Your task to perform on an android device: install app "Fetch Rewards" Image 0: 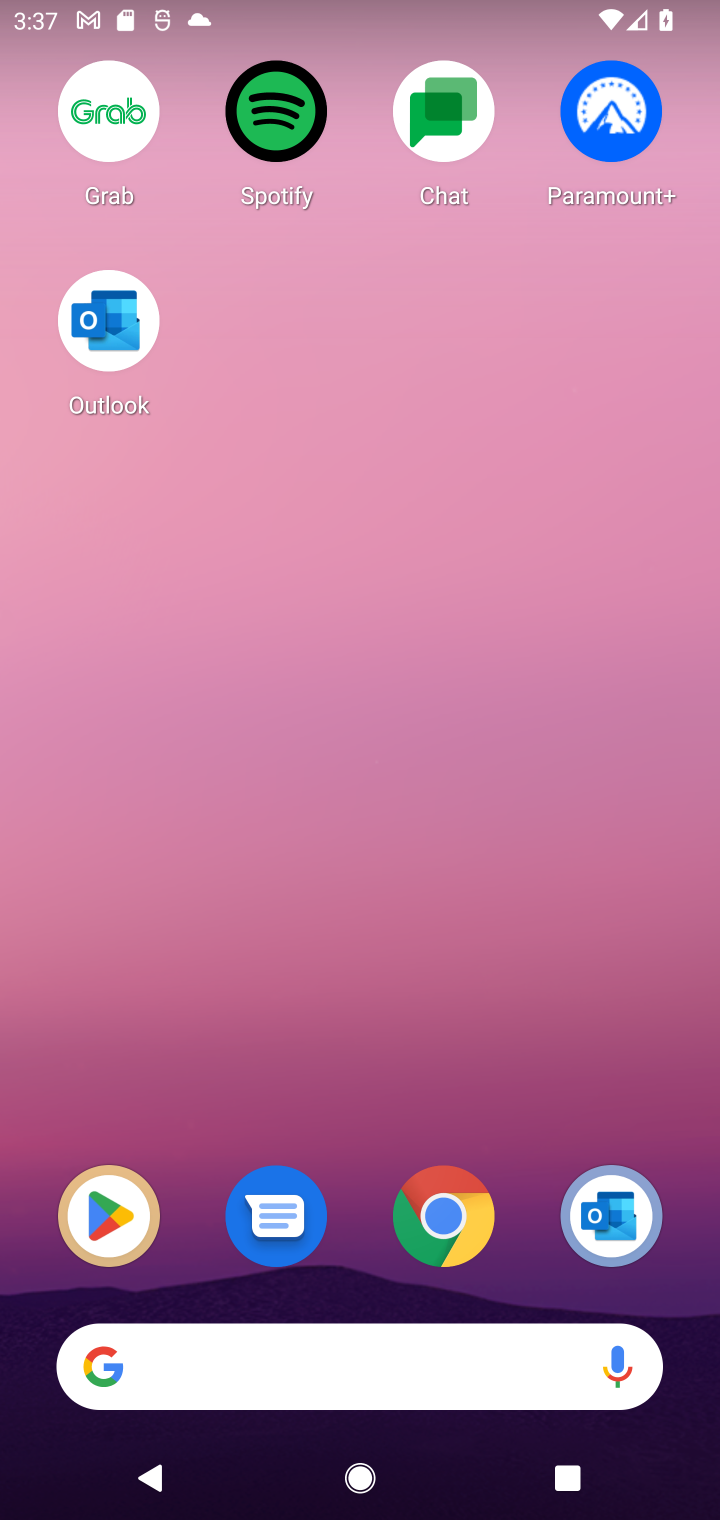
Step 0: drag from (441, 1350) to (431, 57)
Your task to perform on an android device: install app "Fetch Rewards" Image 1: 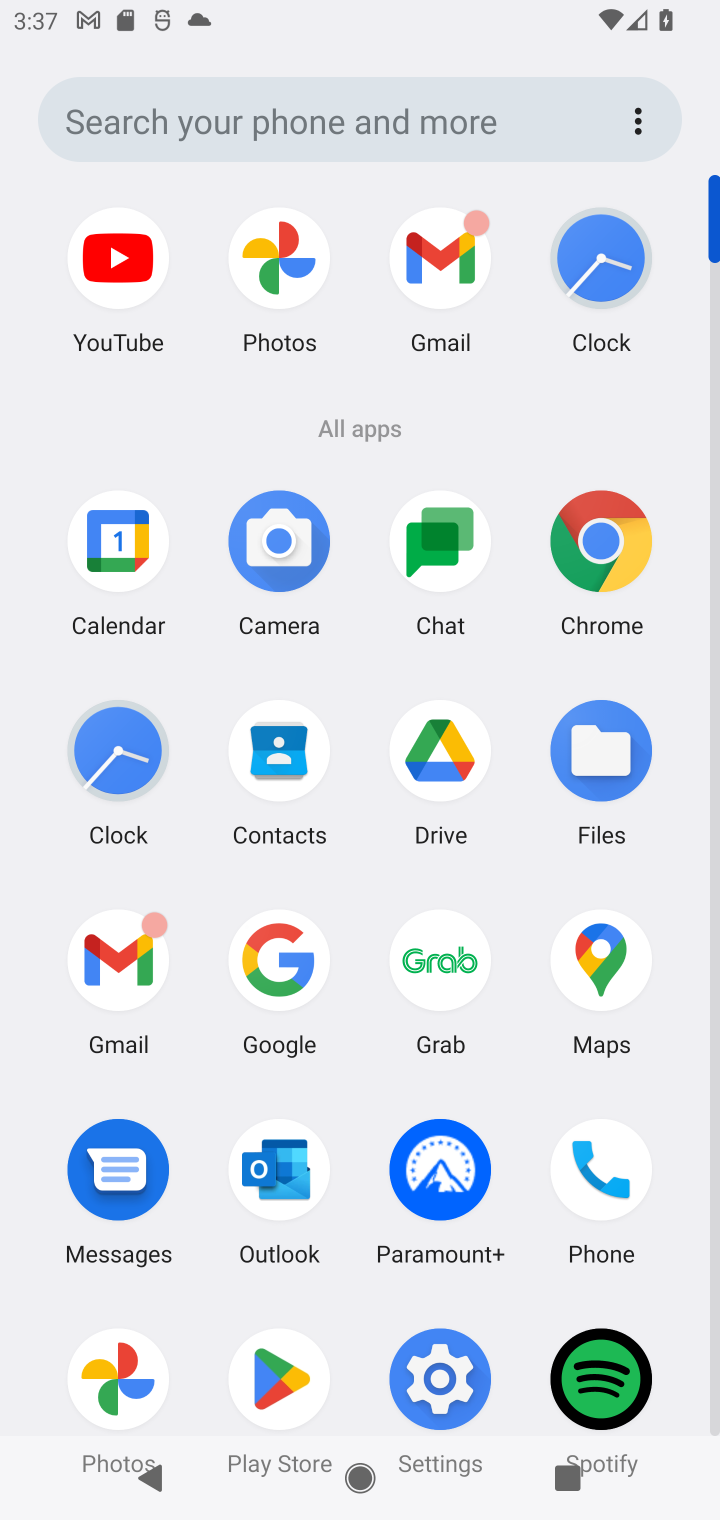
Step 1: click (299, 1370)
Your task to perform on an android device: install app "Fetch Rewards" Image 2: 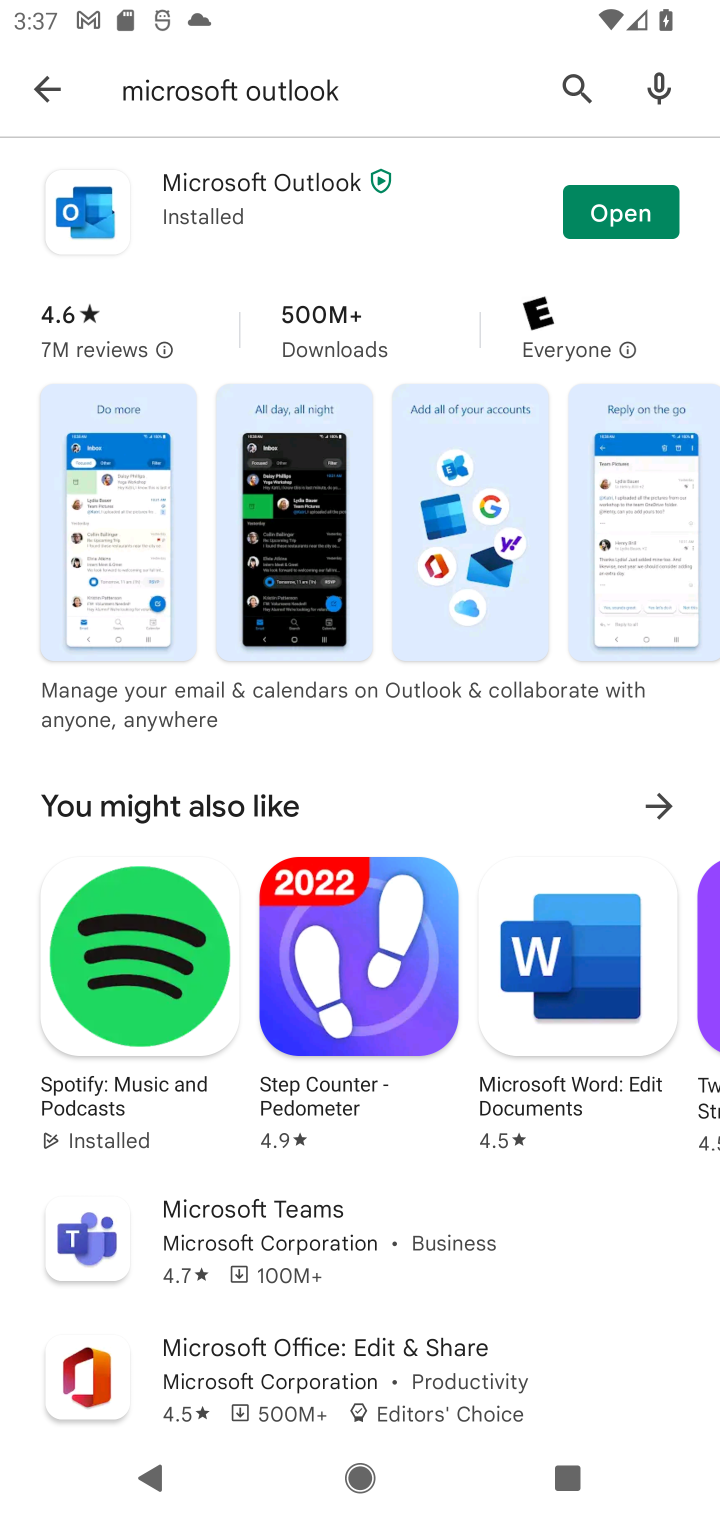
Step 2: click (569, 78)
Your task to perform on an android device: install app "Fetch Rewards" Image 3: 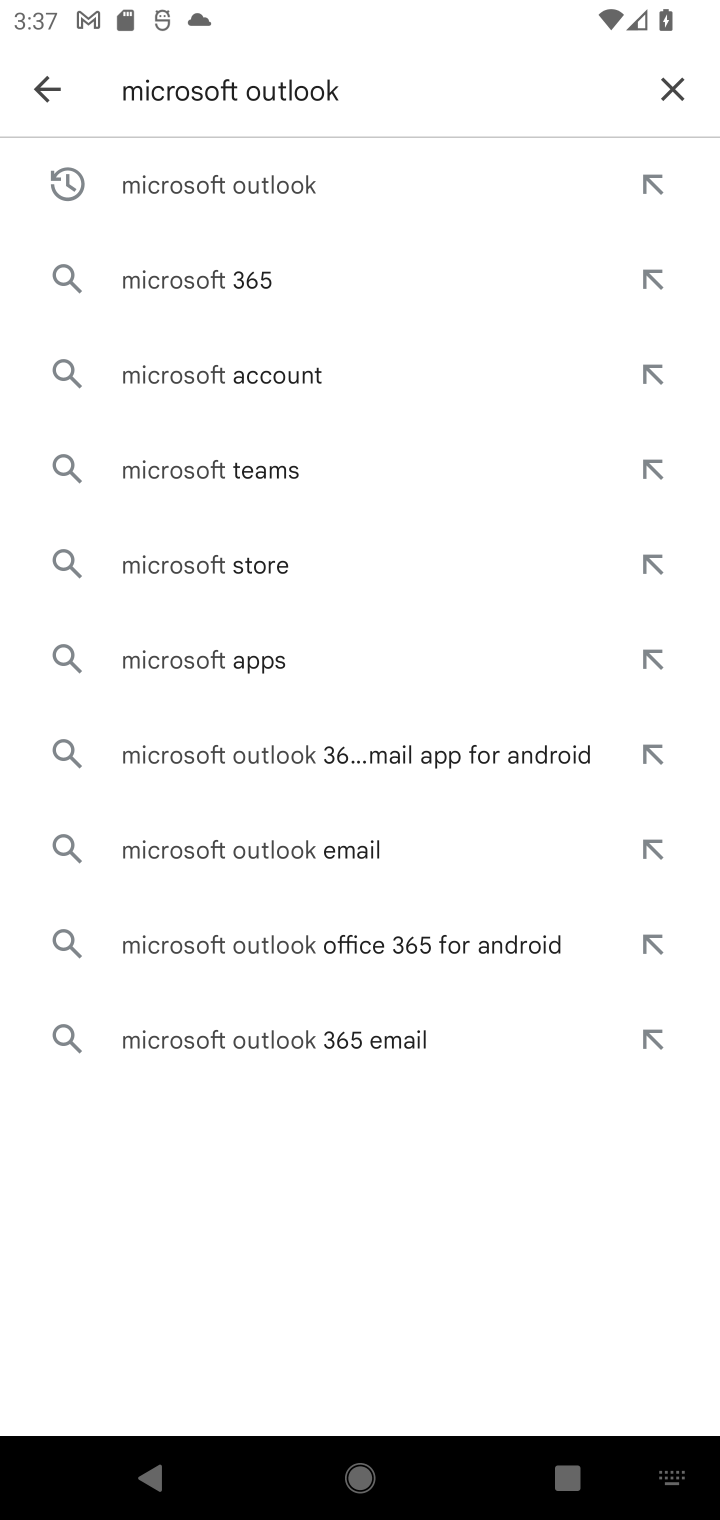
Step 3: click (569, 78)
Your task to perform on an android device: install app "Fetch Rewards" Image 4: 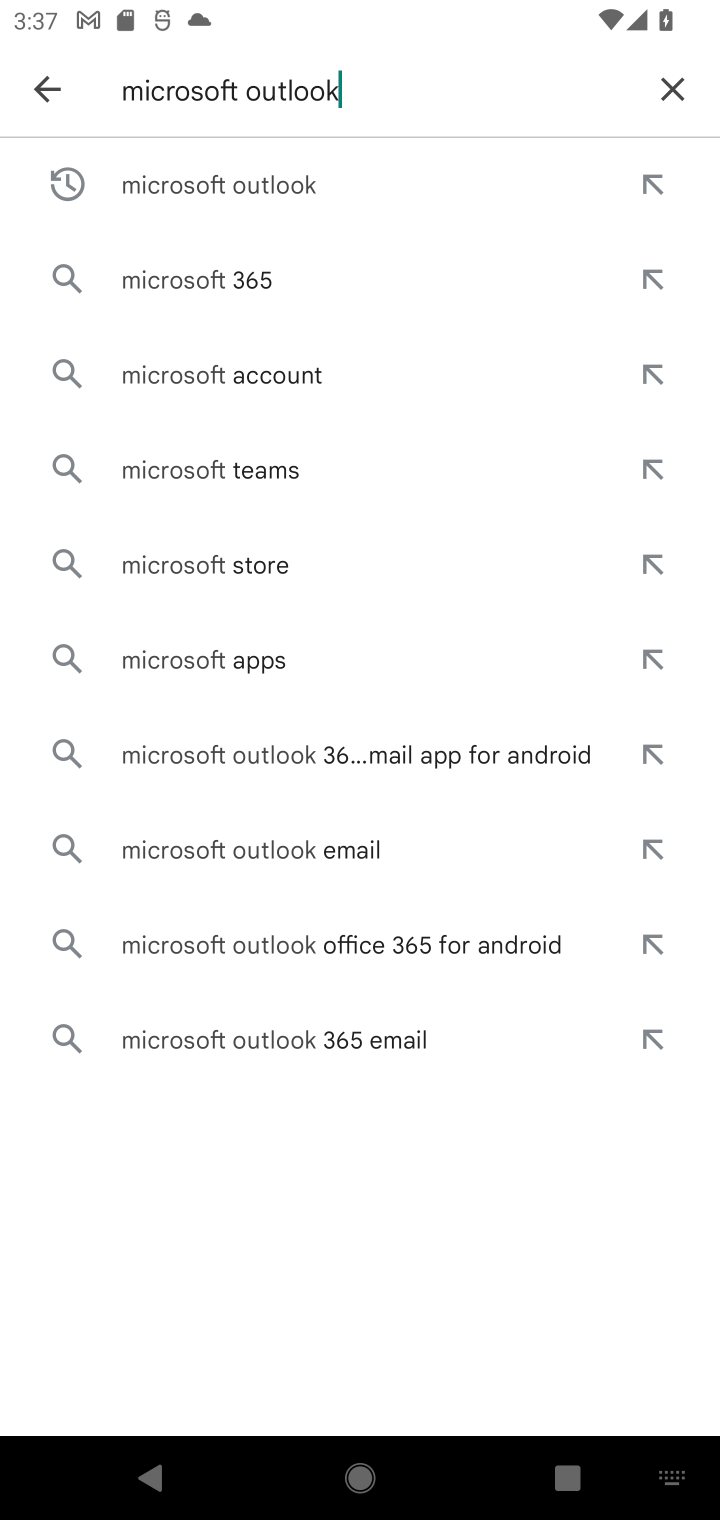
Step 4: type "fetch rewards"
Your task to perform on an android device: install app "Fetch Rewards" Image 5: 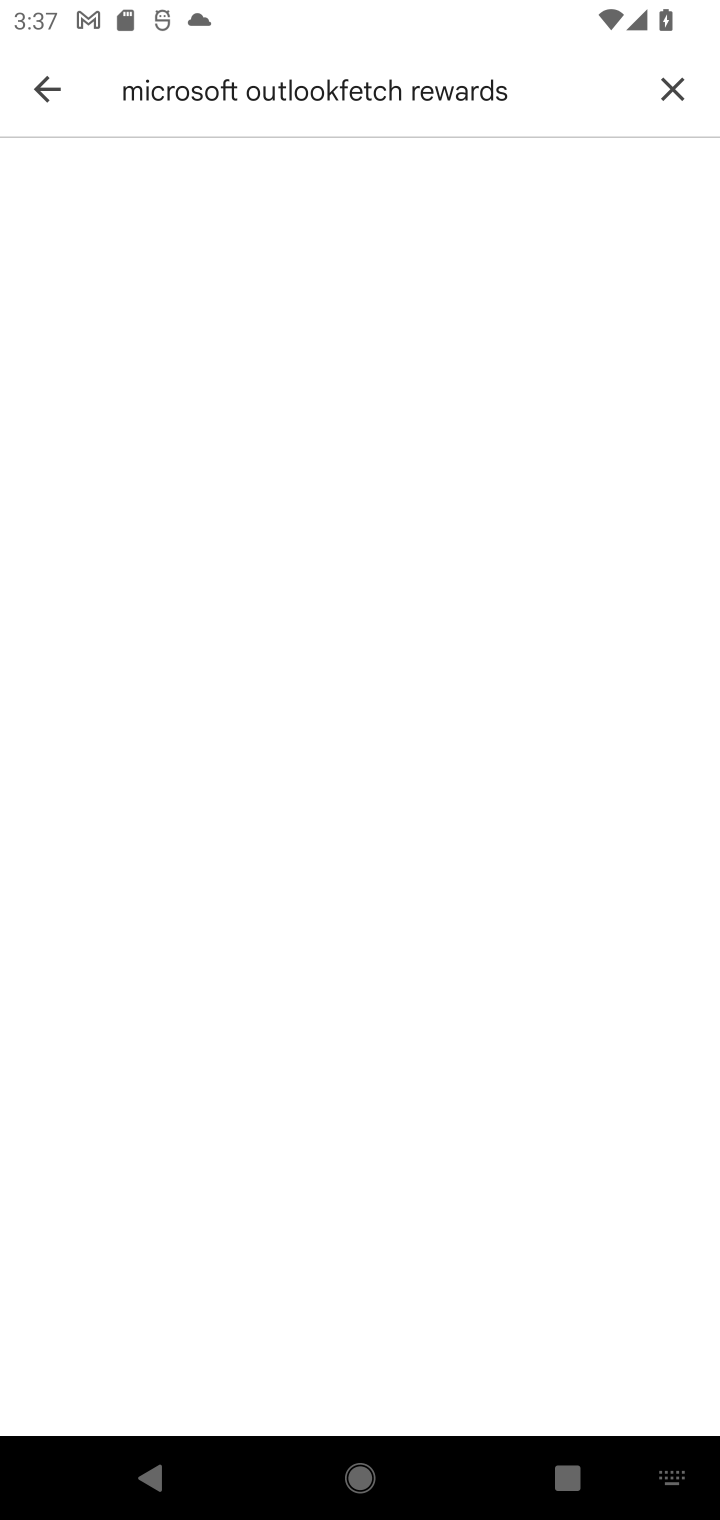
Step 5: click (681, 89)
Your task to perform on an android device: install app "Fetch Rewards" Image 6: 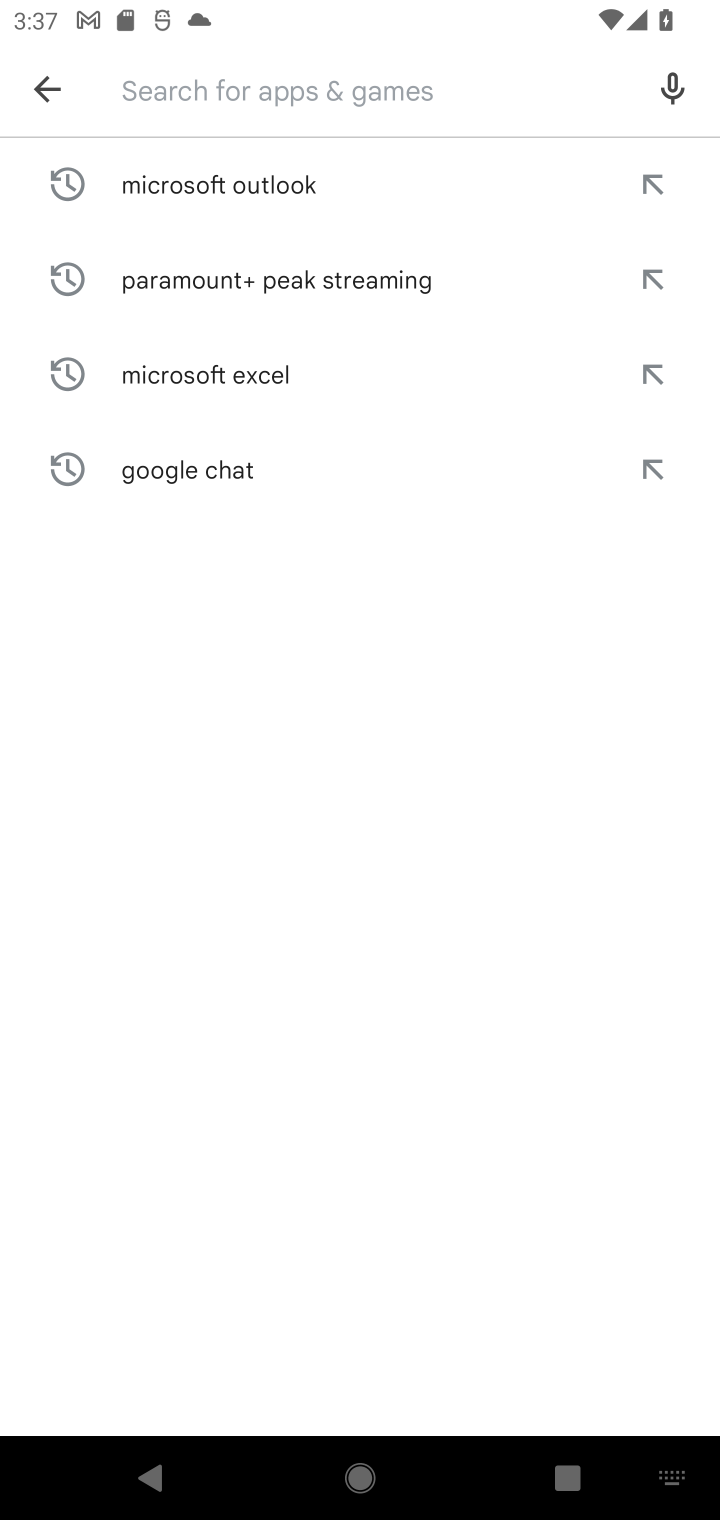
Step 6: type ""
Your task to perform on an android device: install app "Fetch Rewards" Image 7: 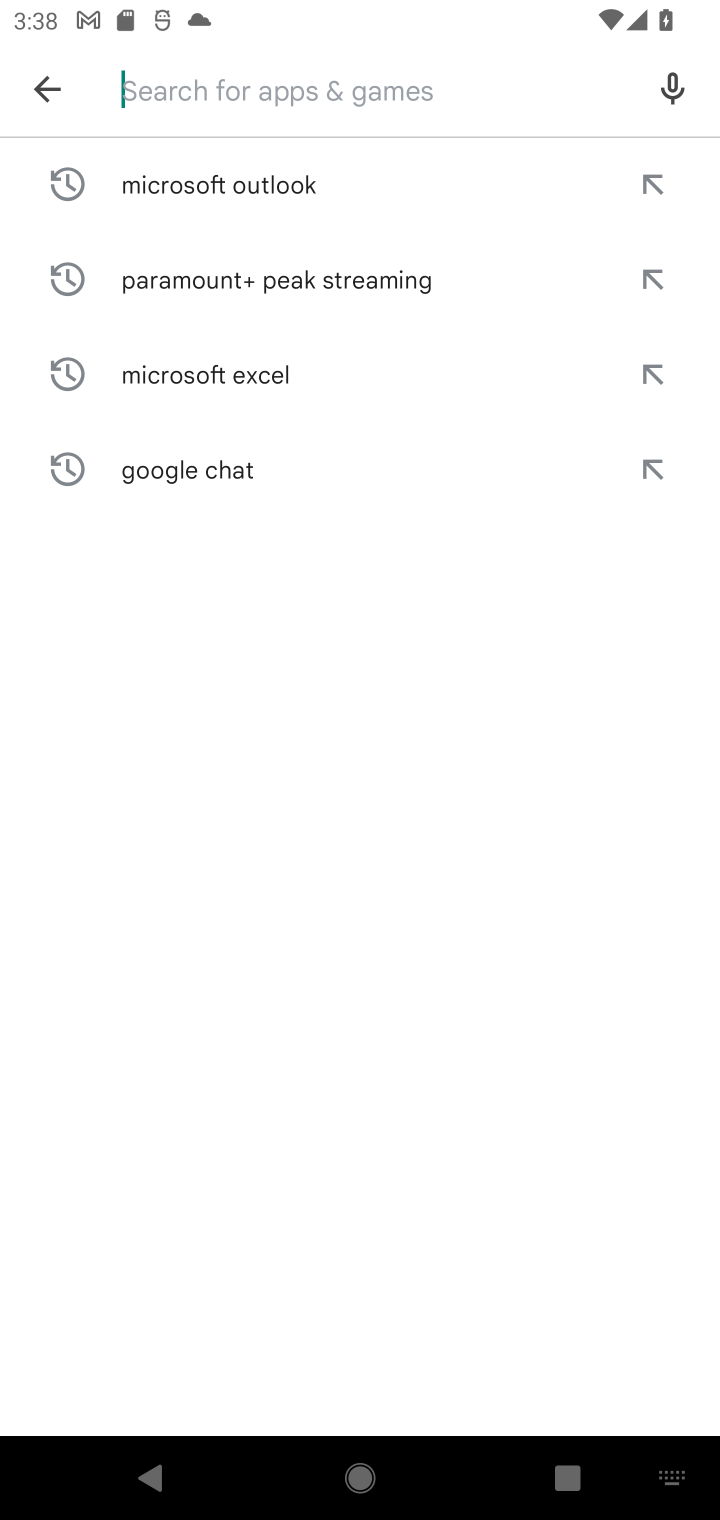
Step 7: type "fetch rewards"
Your task to perform on an android device: install app "Fetch Rewards" Image 8: 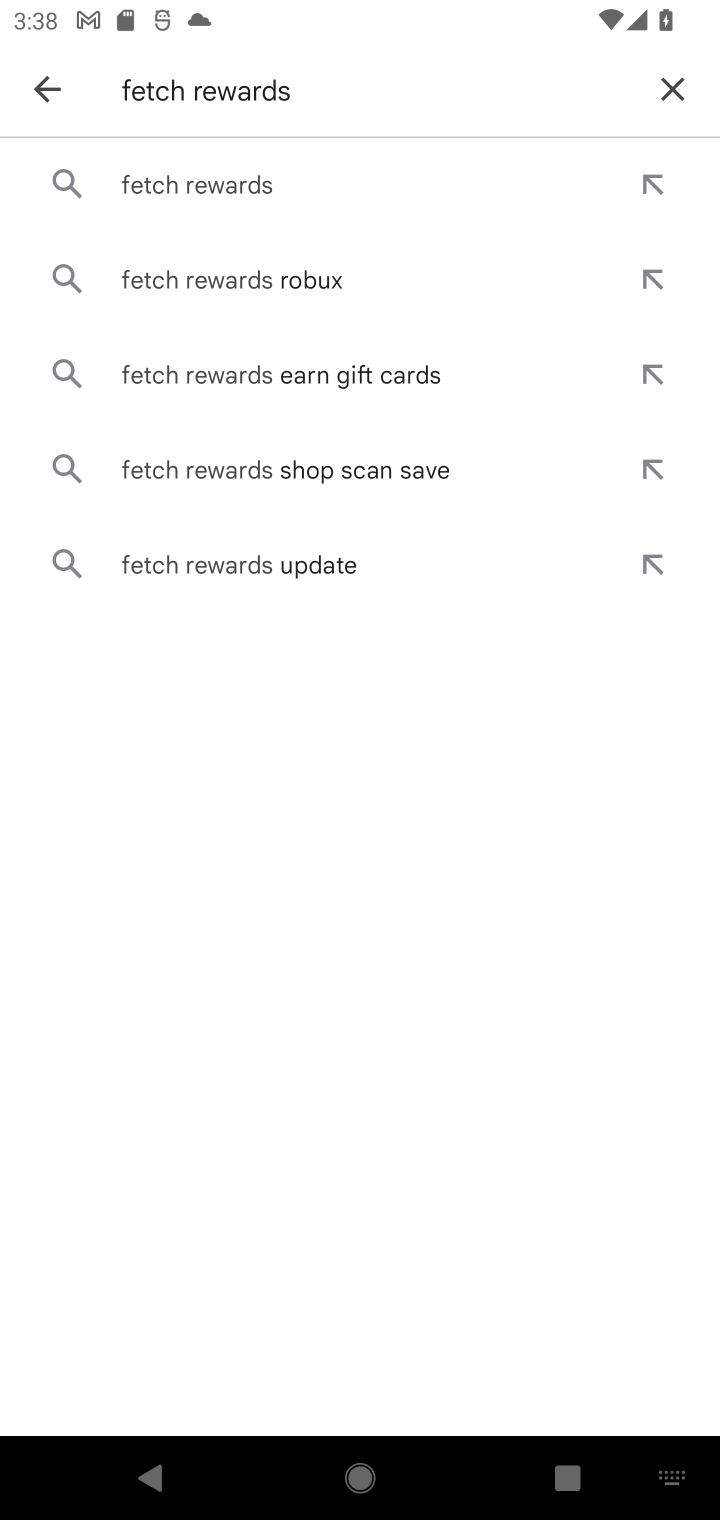
Step 8: click (245, 205)
Your task to perform on an android device: install app "Fetch Rewards" Image 9: 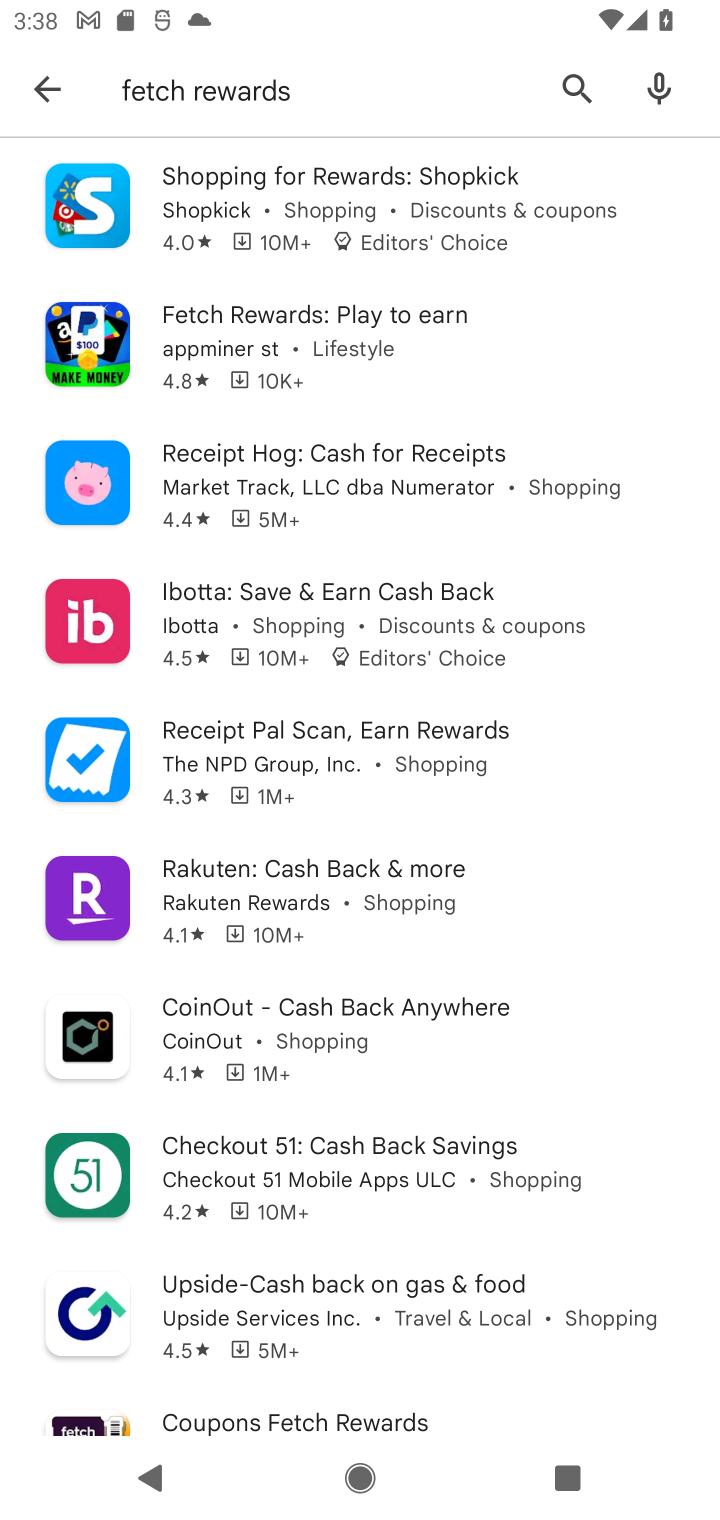
Step 9: click (356, 362)
Your task to perform on an android device: install app "Fetch Rewards" Image 10: 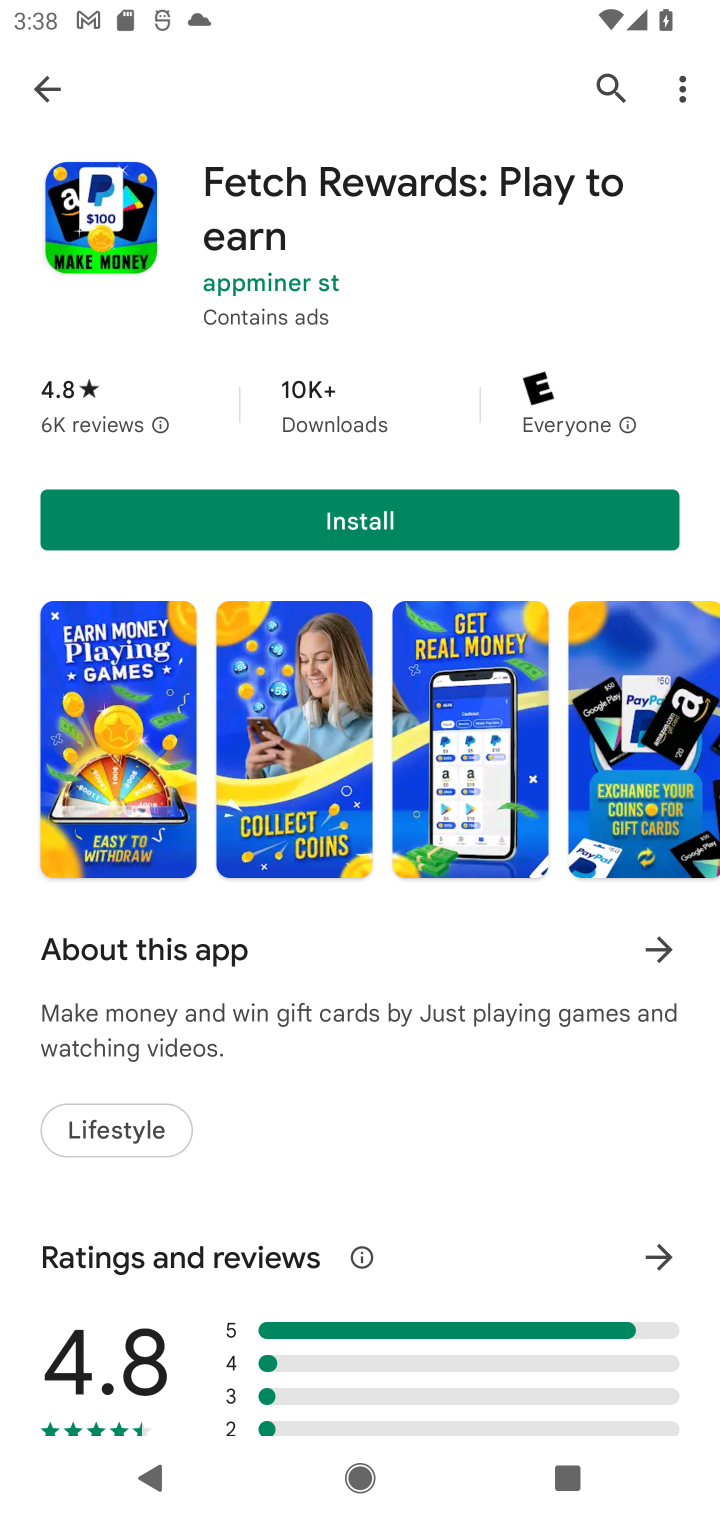
Step 10: click (278, 513)
Your task to perform on an android device: install app "Fetch Rewards" Image 11: 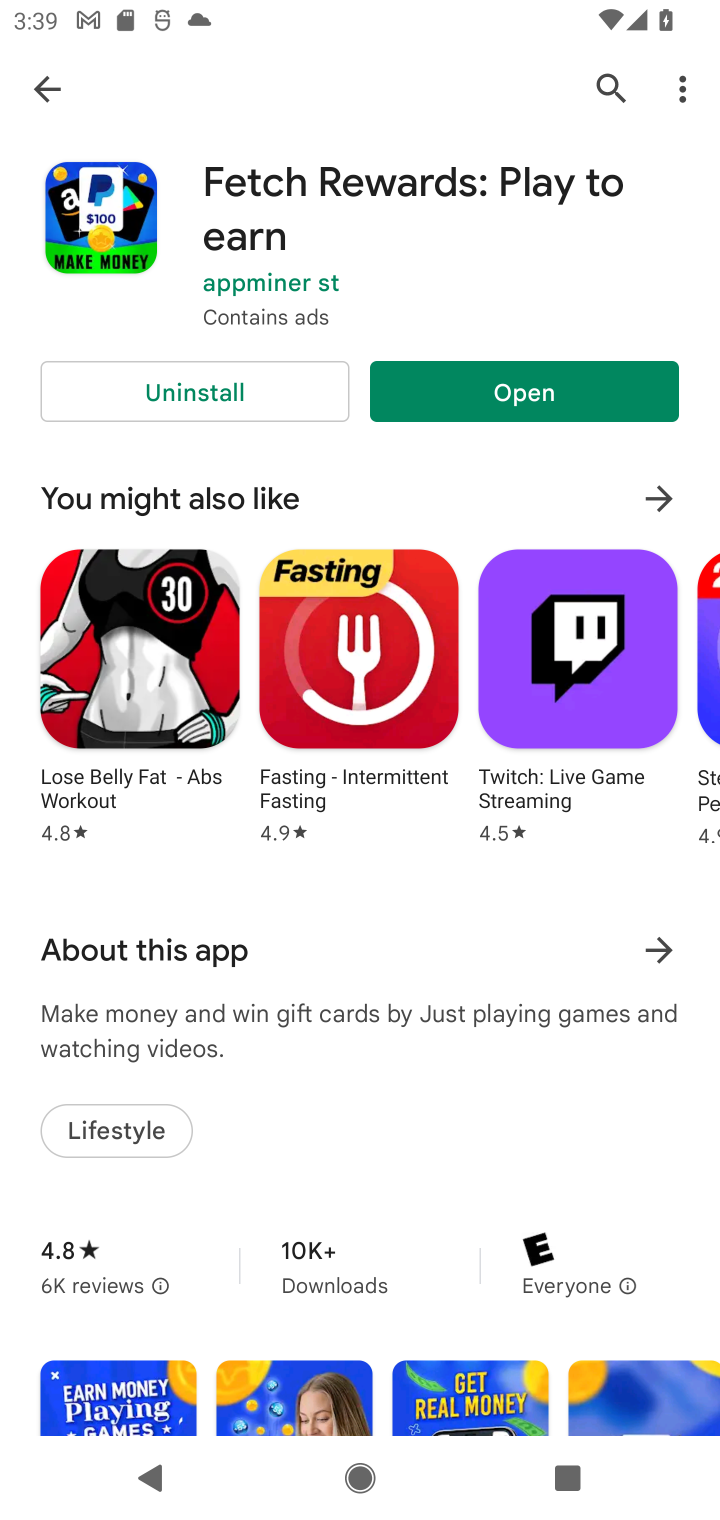
Step 11: task complete